Your task to perform on an android device: Do I have any events today? Image 0: 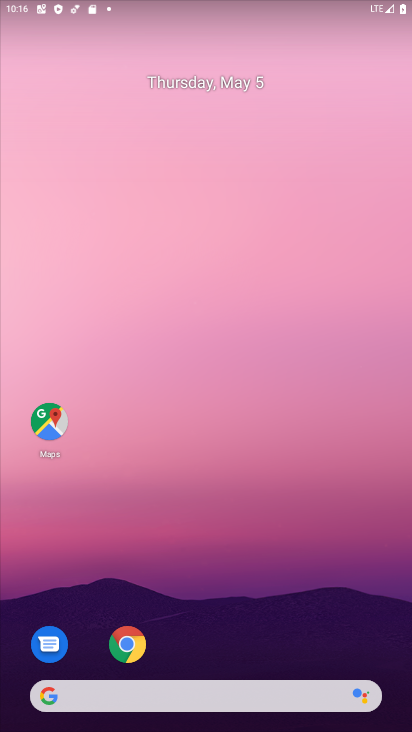
Step 0: drag from (267, 390) to (211, 49)
Your task to perform on an android device: Do I have any events today? Image 1: 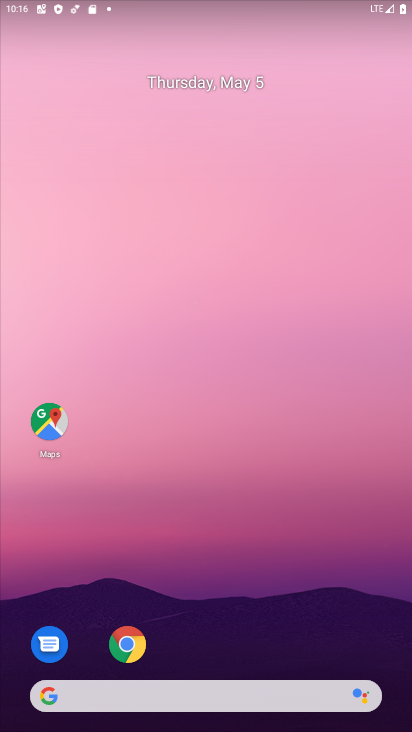
Step 1: drag from (210, 674) to (153, 105)
Your task to perform on an android device: Do I have any events today? Image 2: 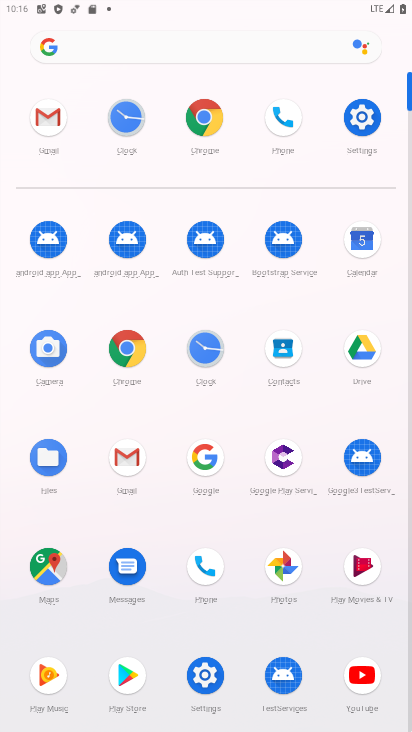
Step 2: click (358, 243)
Your task to perform on an android device: Do I have any events today? Image 3: 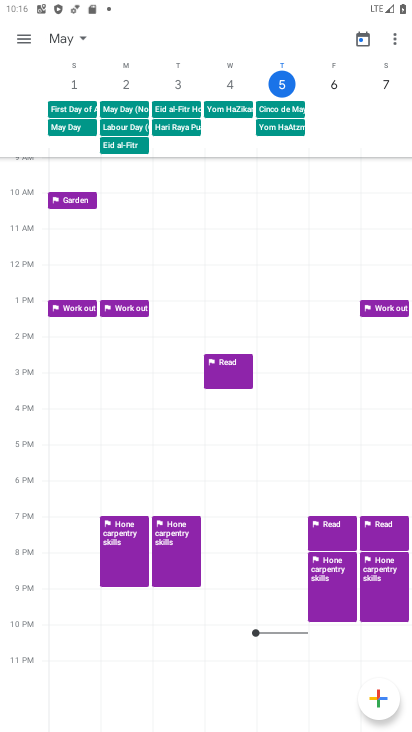
Step 3: click (290, 71)
Your task to perform on an android device: Do I have any events today? Image 4: 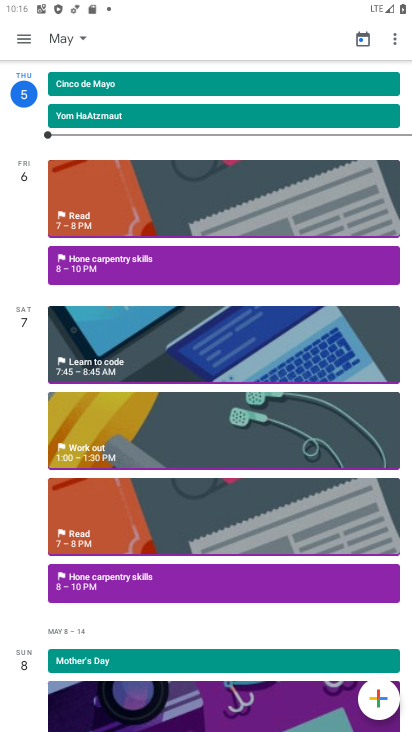
Step 4: task complete